Your task to perform on an android device: Open internet settings Image 0: 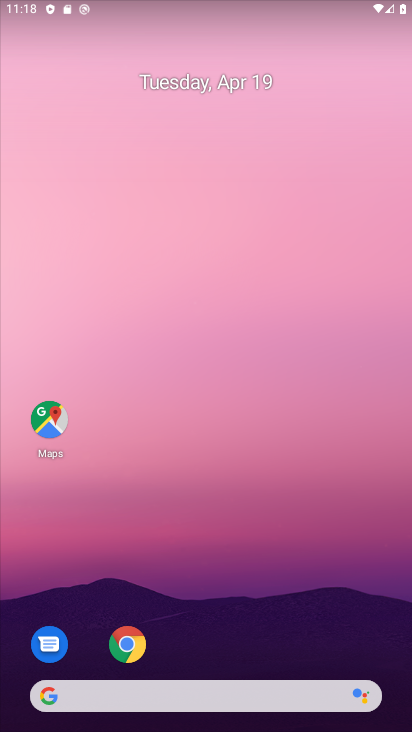
Step 0: drag from (215, 727) to (212, 75)
Your task to perform on an android device: Open internet settings Image 1: 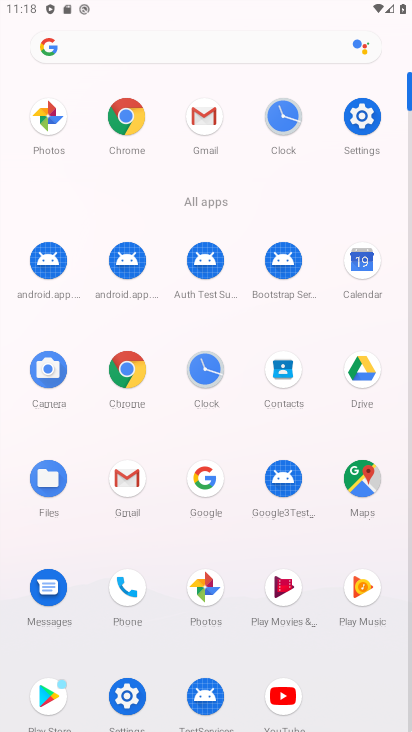
Step 1: click (356, 119)
Your task to perform on an android device: Open internet settings Image 2: 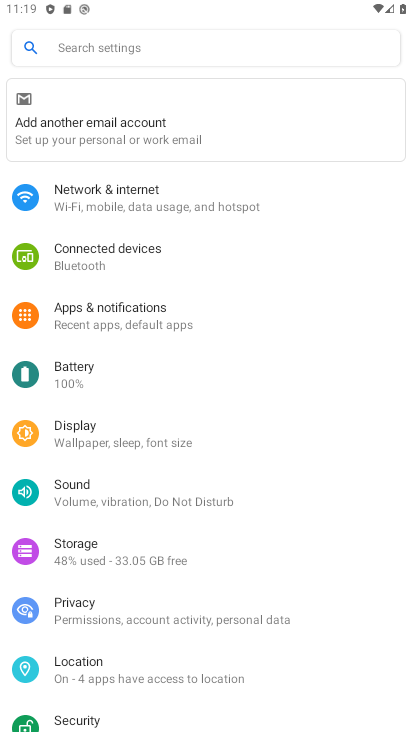
Step 2: click (113, 198)
Your task to perform on an android device: Open internet settings Image 3: 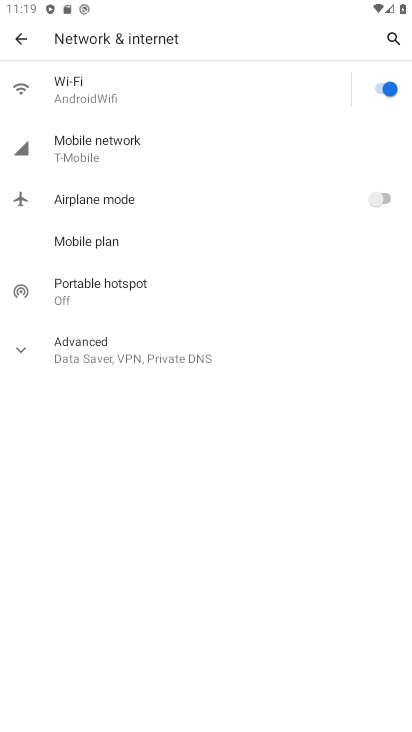
Step 3: task complete